Your task to perform on an android device: turn off improve location accuracy Image 0: 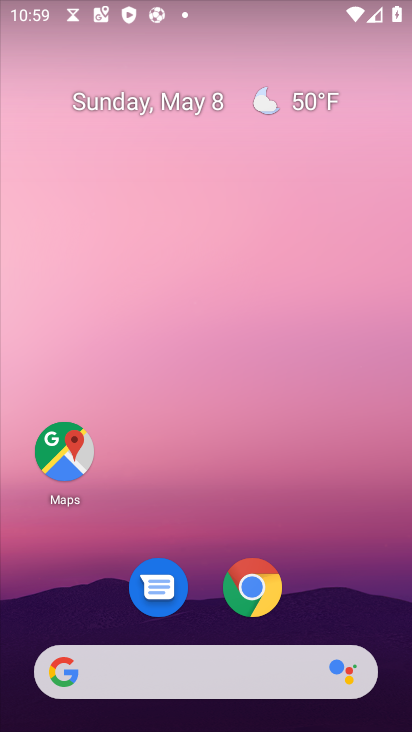
Step 0: drag from (317, 427) to (266, 155)
Your task to perform on an android device: turn off improve location accuracy Image 1: 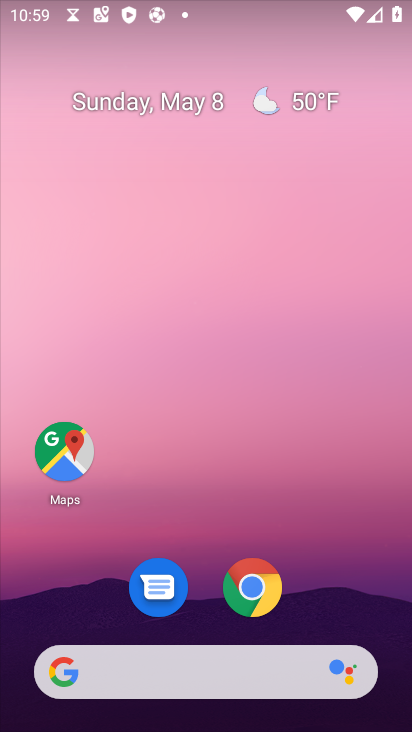
Step 1: drag from (360, 614) to (201, 5)
Your task to perform on an android device: turn off improve location accuracy Image 2: 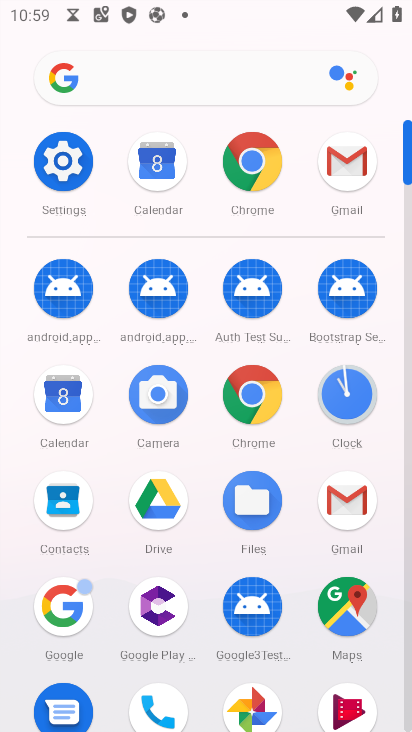
Step 2: click (73, 160)
Your task to perform on an android device: turn off improve location accuracy Image 3: 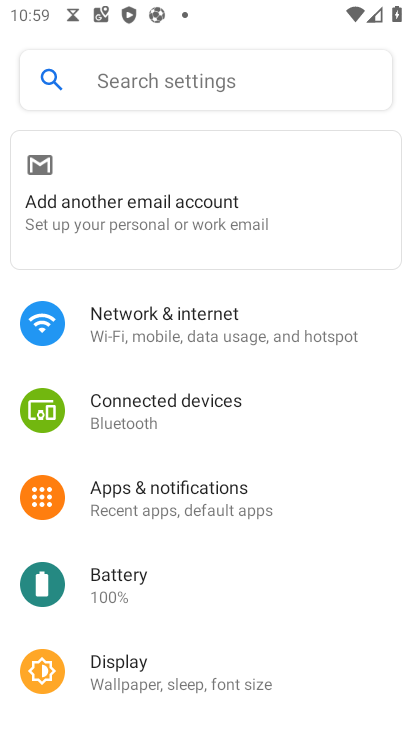
Step 3: drag from (187, 654) to (163, 344)
Your task to perform on an android device: turn off improve location accuracy Image 4: 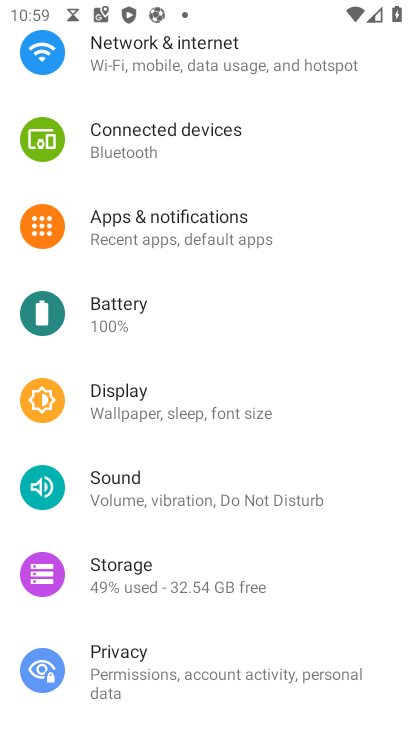
Step 4: drag from (231, 636) to (195, 291)
Your task to perform on an android device: turn off improve location accuracy Image 5: 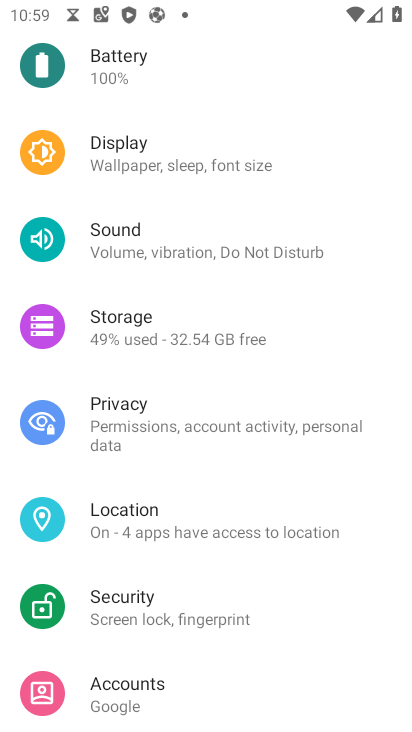
Step 5: click (139, 522)
Your task to perform on an android device: turn off improve location accuracy Image 6: 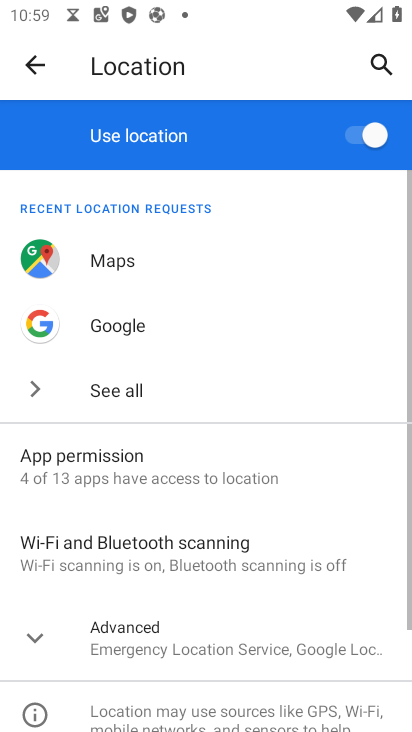
Step 6: click (181, 651)
Your task to perform on an android device: turn off improve location accuracy Image 7: 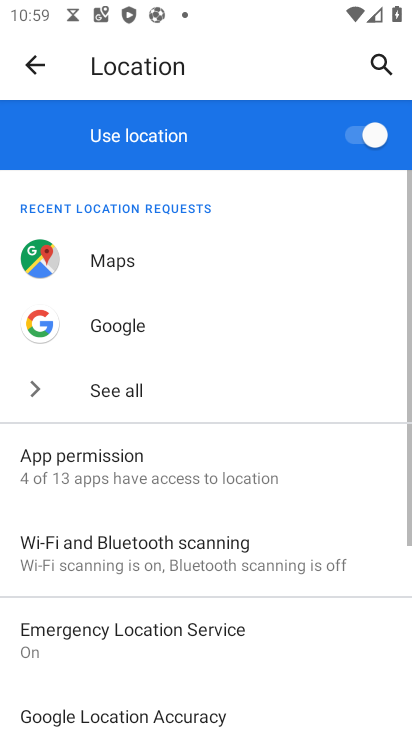
Step 7: drag from (181, 651) to (179, 430)
Your task to perform on an android device: turn off improve location accuracy Image 8: 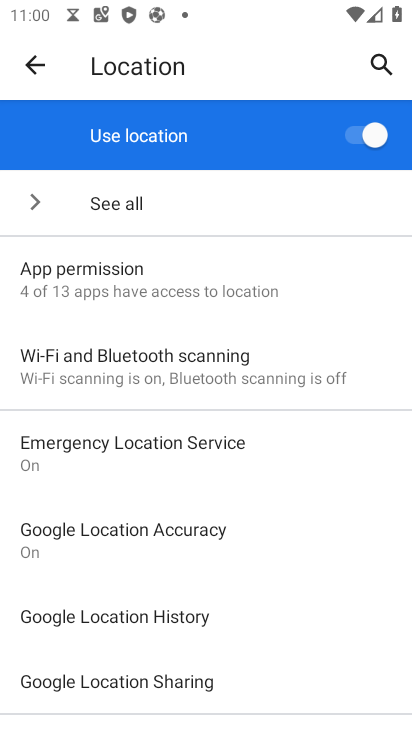
Step 8: click (178, 533)
Your task to perform on an android device: turn off improve location accuracy Image 9: 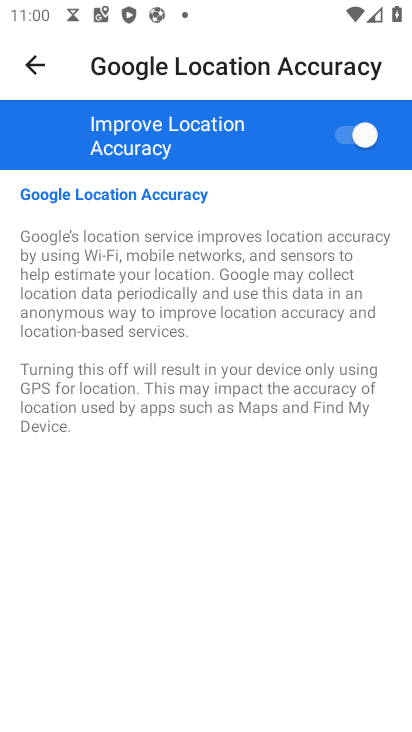
Step 9: click (365, 132)
Your task to perform on an android device: turn off improve location accuracy Image 10: 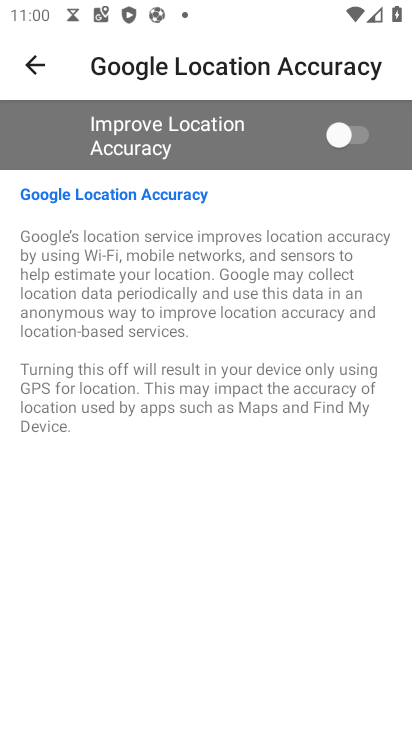
Step 10: task complete